Your task to perform on an android device: turn off notifications in google photos Image 0: 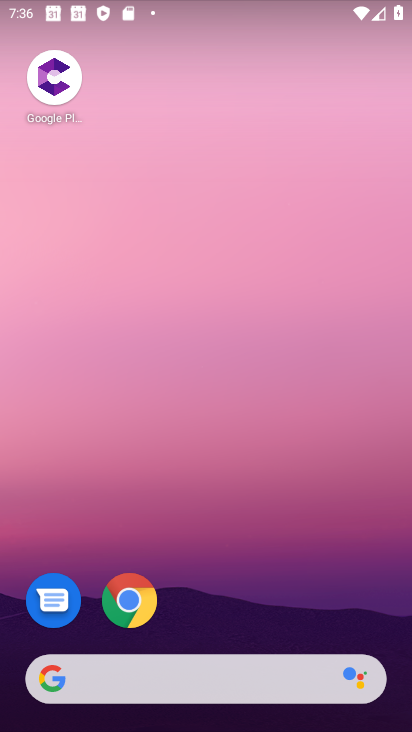
Step 0: drag from (205, 659) to (193, 77)
Your task to perform on an android device: turn off notifications in google photos Image 1: 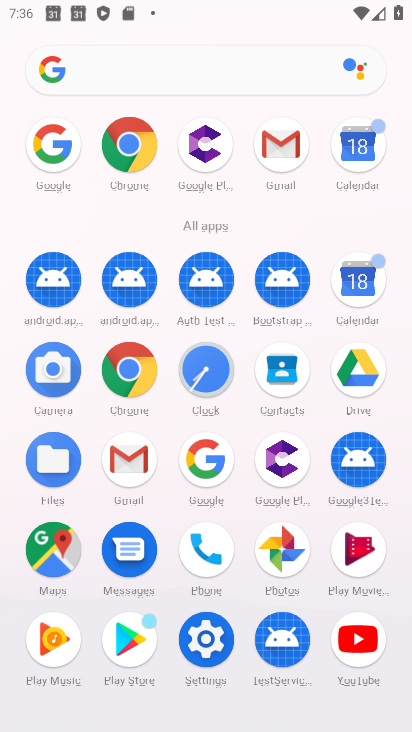
Step 1: click (282, 546)
Your task to perform on an android device: turn off notifications in google photos Image 2: 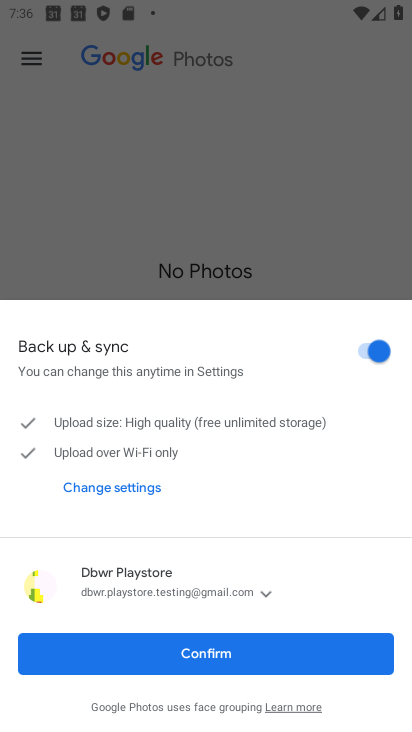
Step 2: click (199, 650)
Your task to perform on an android device: turn off notifications in google photos Image 3: 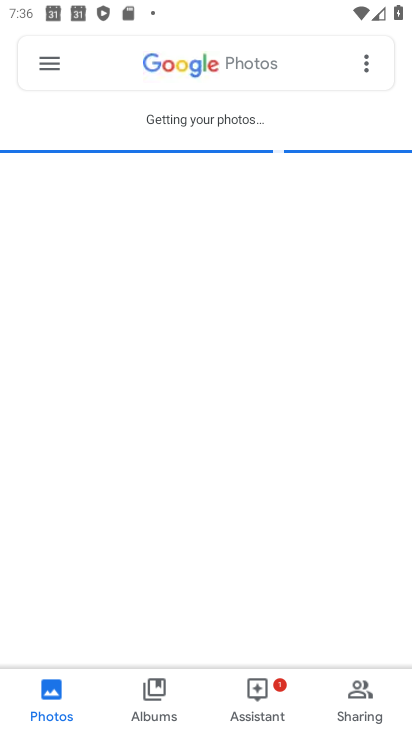
Step 3: click (34, 56)
Your task to perform on an android device: turn off notifications in google photos Image 4: 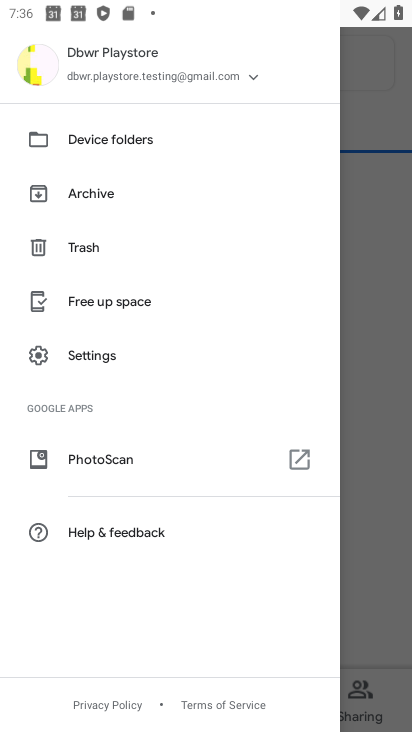
Step 4: click (97, 331)
Your task to perform on an android device: turn off notifications in google photos Image 5: 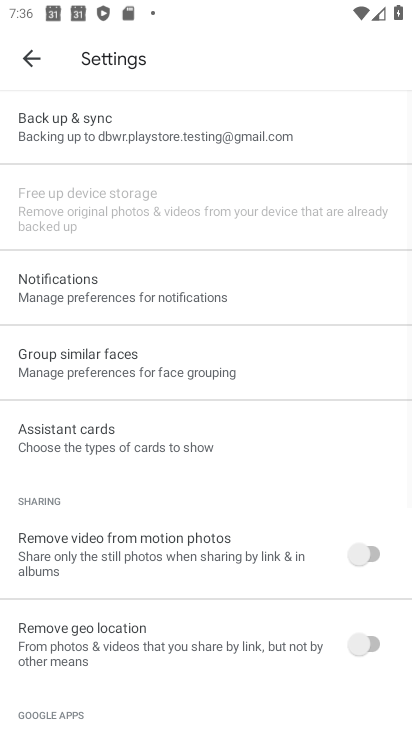
Step 5: click (90, 305)
Your task to perform on an android device: turn off notifications in google photos Image 6: 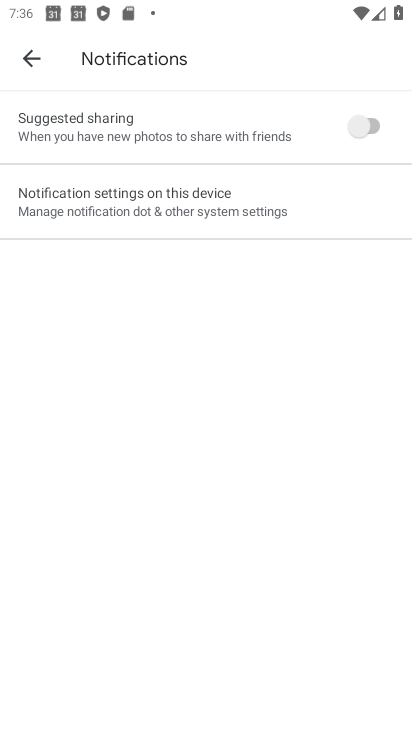
Step 6: click (84, 211)
Your task to perform on an android device: turn off notifications in google photos Image 7: 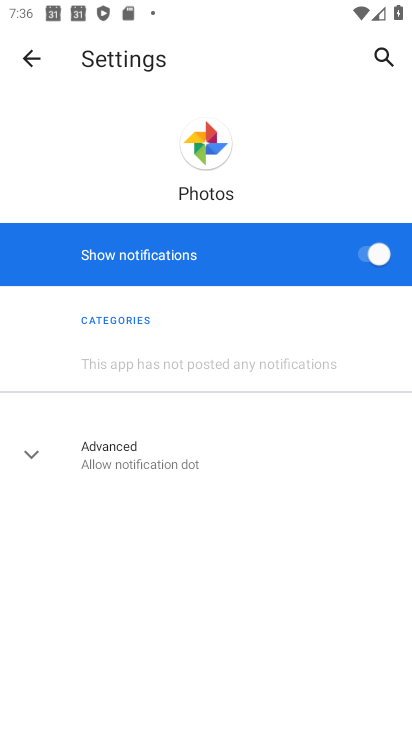
Step 7: click (349, 255)
Your task to perform on an android device: turn off notifications in google photos Image 8: 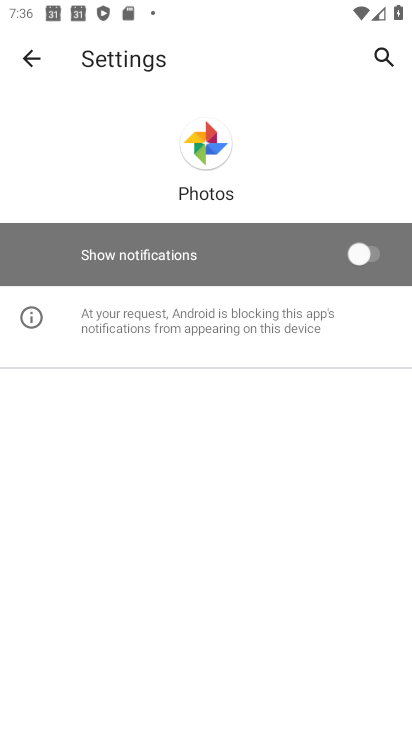
Step 8: task complete